Your task to perform on an android device: turn off smart reply in the gmail app Image 0: 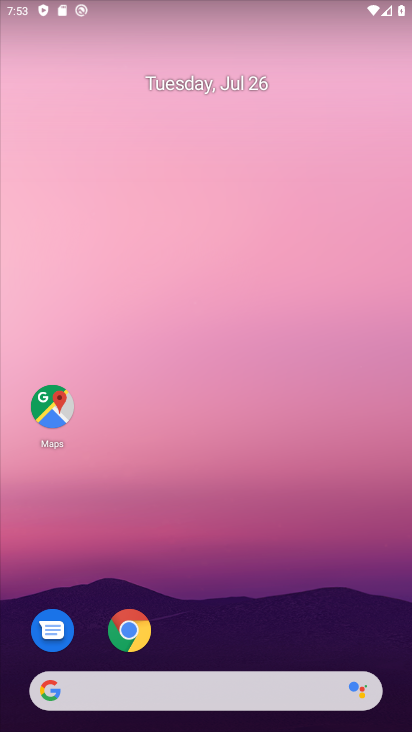
Step 0: drag from (226, 693) to (336, 100)
Your task to perform on an android device: turn off smart reply in the gmail app Image 1: 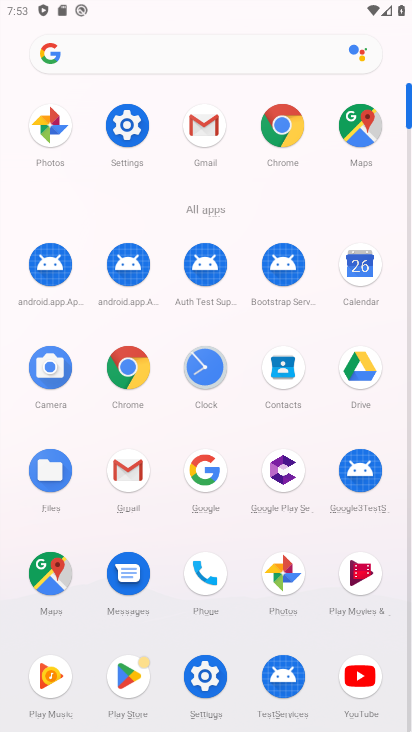
Step 1: click (204, 122)
Your task to perform on an android device: turn off smart reply in the gmail app Image 2: 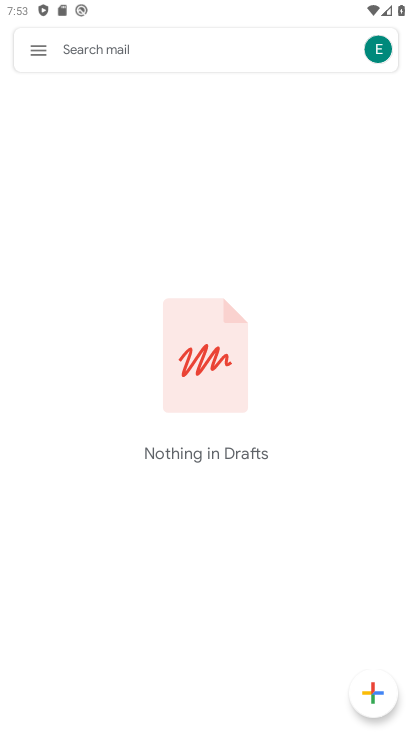
Step 2: click (42, 50)
Your task to perform on an android device: turn off smart reply in the gmail app Image 3: 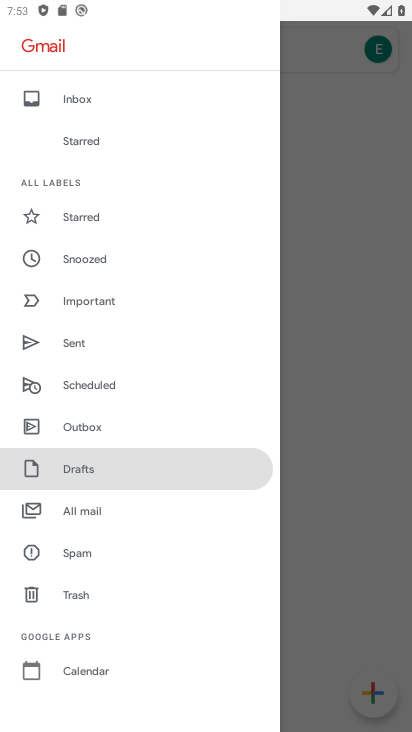
Step 3: drag from (108, 538) to (154, 403)
Your task to perform on an android device: turn off smart reply in the gmail app Image 4: 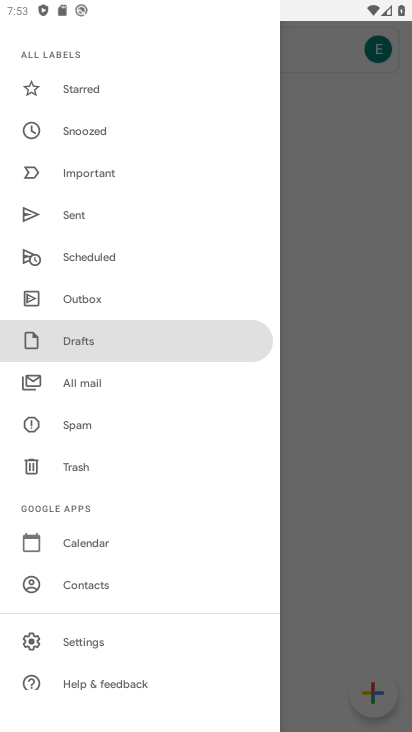
Step 4: drag from (85, 493) to (149, 394)
Your task to perform on an android device: turn off smart reply in the gmail app Image 5: 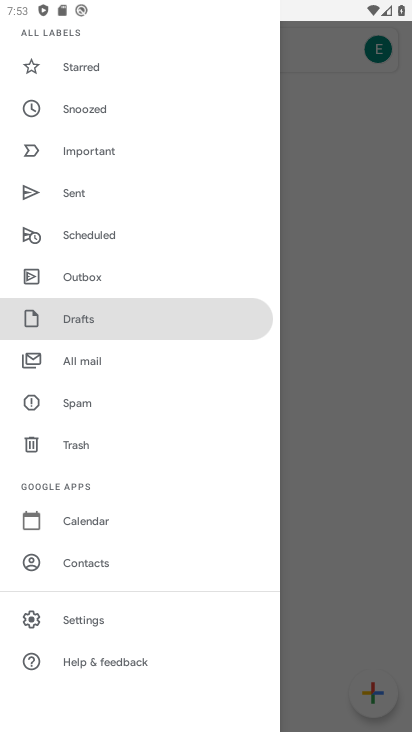
Step 5: click (85, 621)
Your task to perform on an android device: turn off smart reply in the gmail app Image 6: 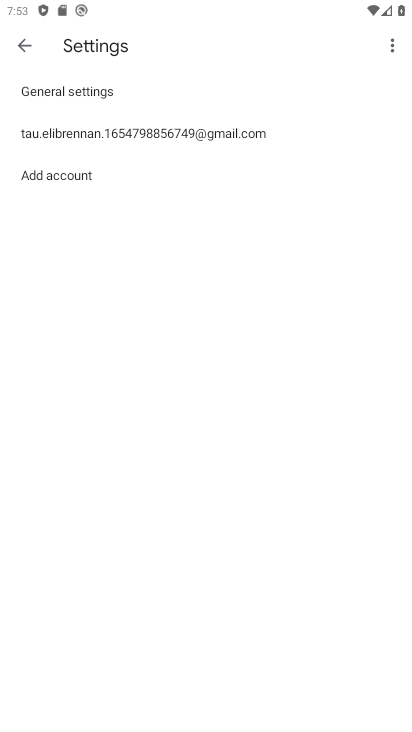
Step 6: click (147, 137)
Your task to perform on an android device: turn off smart reply in the gmail app Image 7: 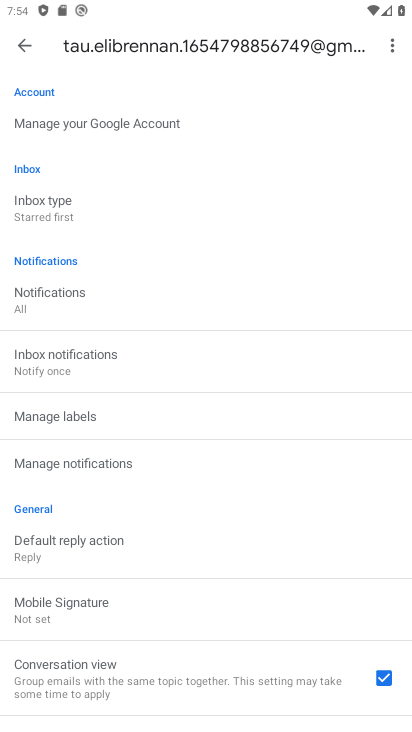
Step 7: drag from (124, 496) to (176, 416)
Your task to perform on an android device: turn off smart reply in the gmail app Image 8: 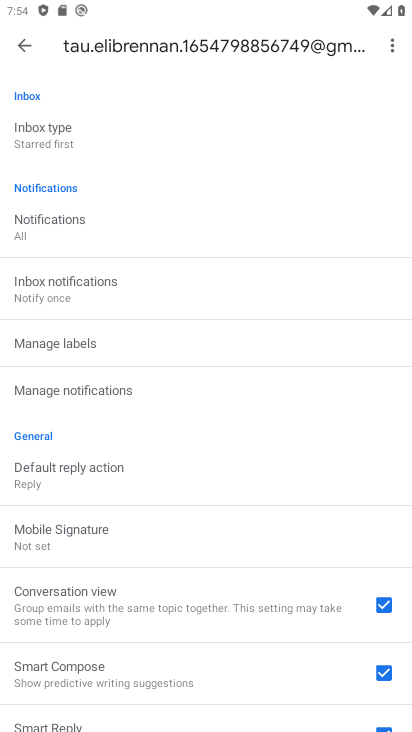
Step 8: drag from (138, 620) to (182, 517)
Your task to perform on an android device: turn off smart reply in the gmail app Image 9: 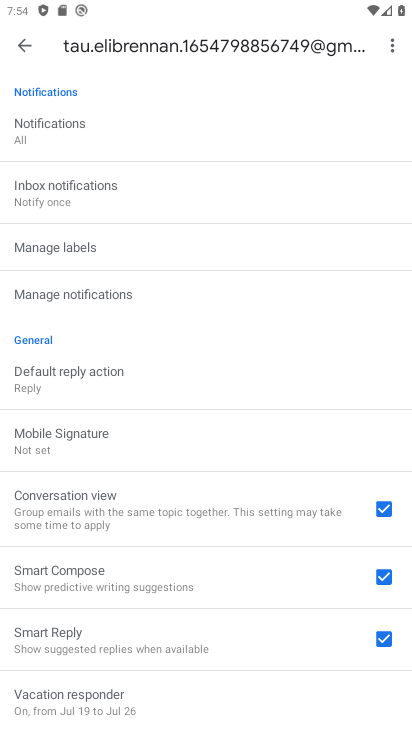
Step 9: click (383, 641)
Your task to perform on an android device: turn off smart reply in the gmail app Image 10: 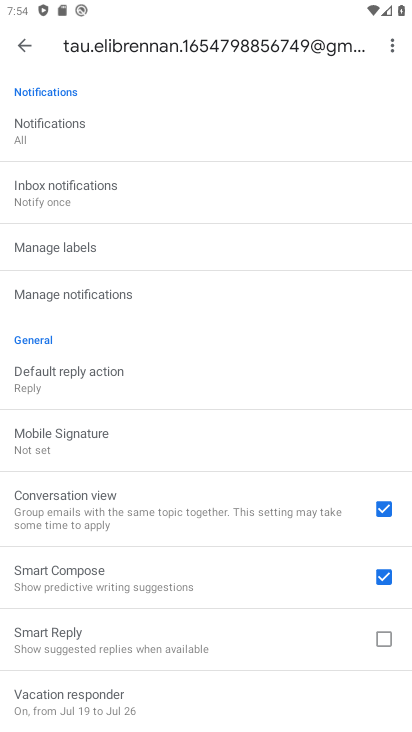
Step 10: task complete